Your task to perform on an android device: Open the calendar and show me this week's events? Image 0: 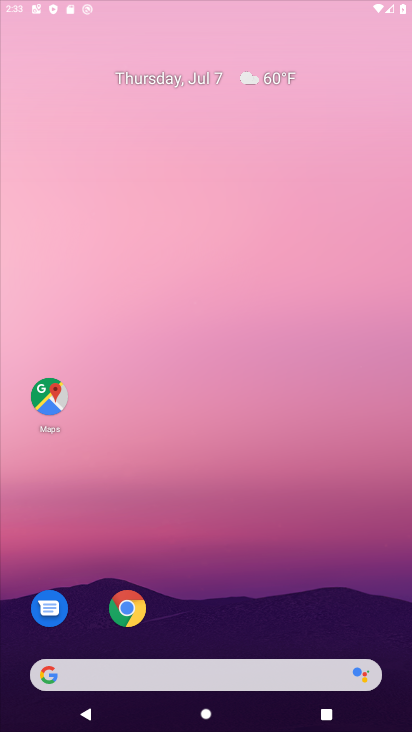
Step 0: drag from (240, 641) to (227, 83)
Your task to perform on an android device: Open the calendar and show me this week's events? Image 1: 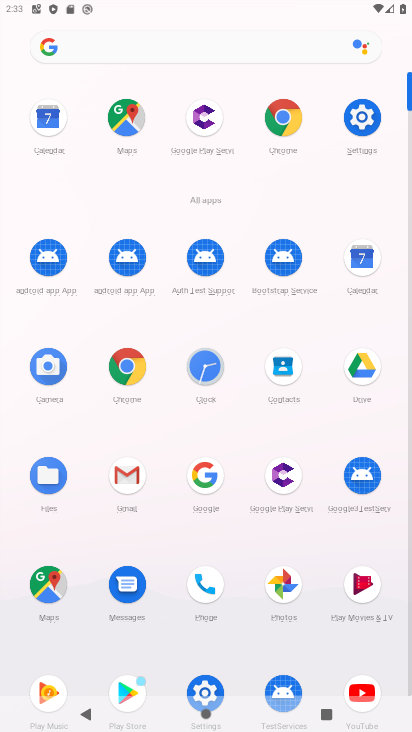
Step 1: click (364, 261)
Your task to perform on an android device: Open the calendar and show me this week's events? Image 2: 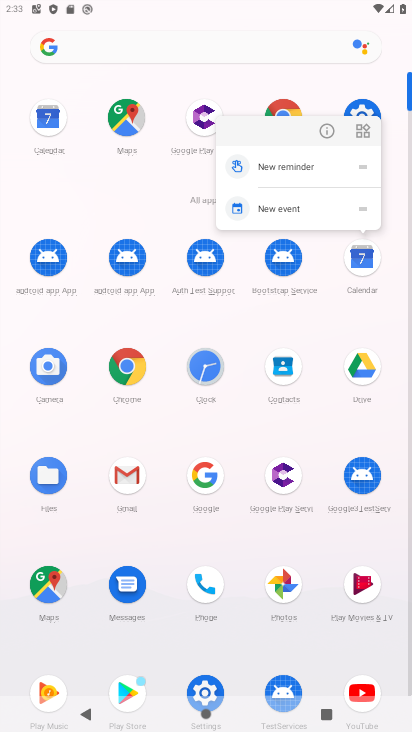
Step 2: click (359, 258)
Your task to perform on an android device: Open the calendar and show me this week's events? Image 3: 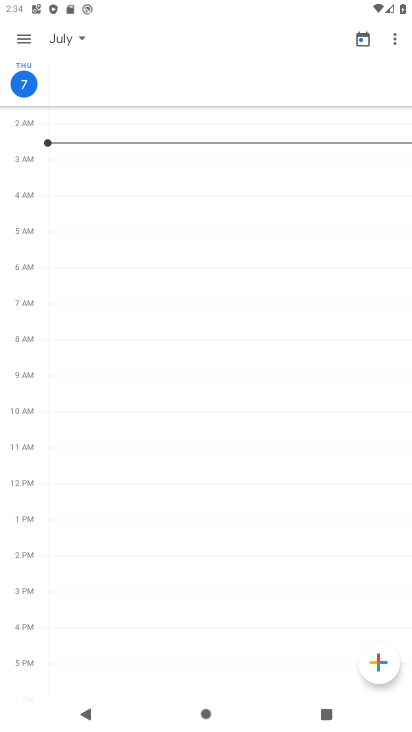
Step 3: click (16, 33)
Your task to perform on an android device: Open the calendar and show me this week's events? Image 4: 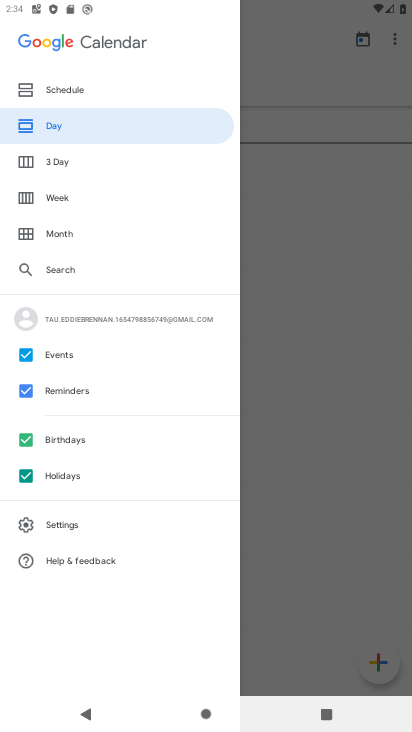
Step 4: click (26, 384)
Your task to perform on an android device: Open the calendar and show me this week's events? Image 5: 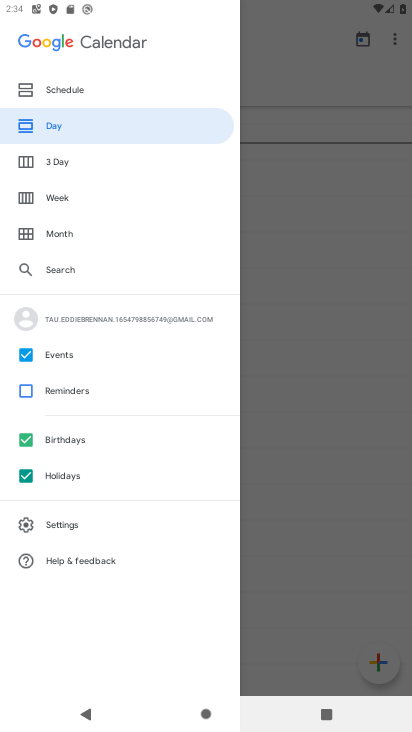
Step 5: click (24, 442)
Your task to perform on an android device: Open the calendar and show me this week's events? Image 6: 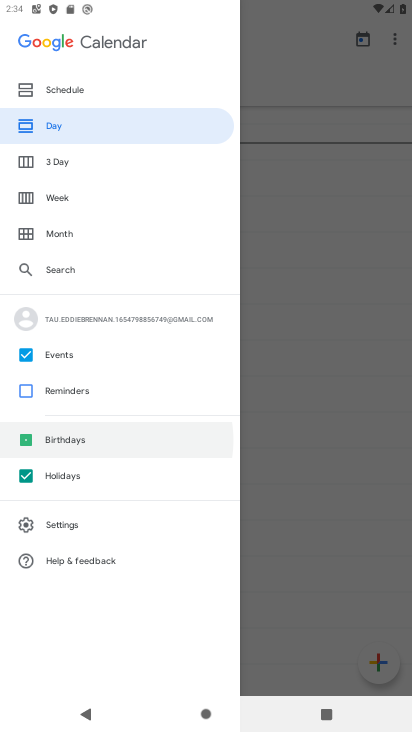
Step 6: click (27, 472)
Your task to perform on an android device: Open the calendar and show me this week's events? Image 7: 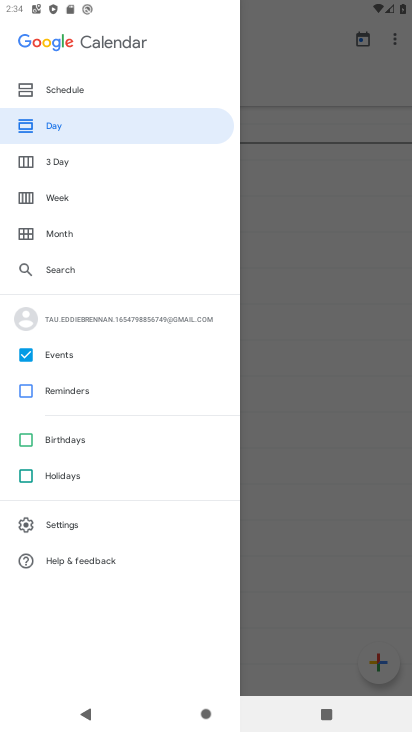
Step 7: click (31, 200)
Your task to perform on an android device: Open the calendar and show me this week's events? Image 8: 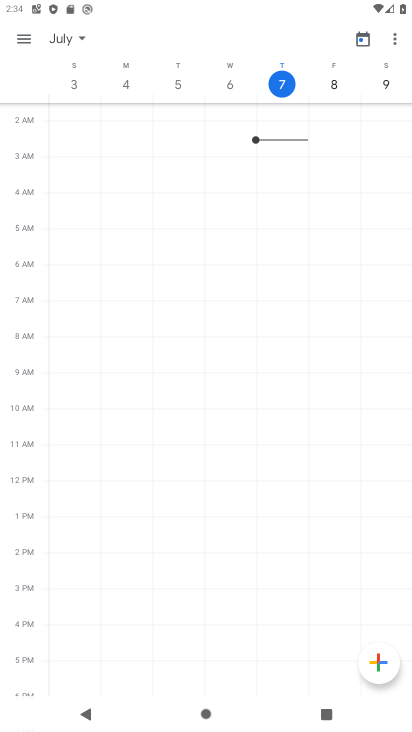
Step 8: click (281, 82)
Your task to perform on an android device: Open the calendar and show me this week's events? Image 9: 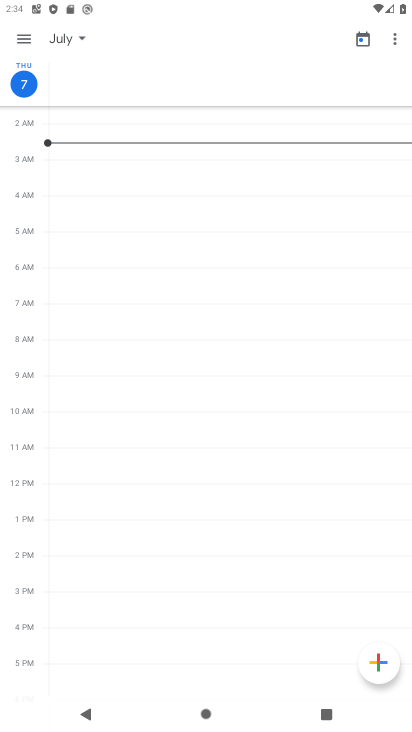
Step 9: click (26, 84)
Your task to perform on an android device: Open the calendar and show me this week's events? Image 10: 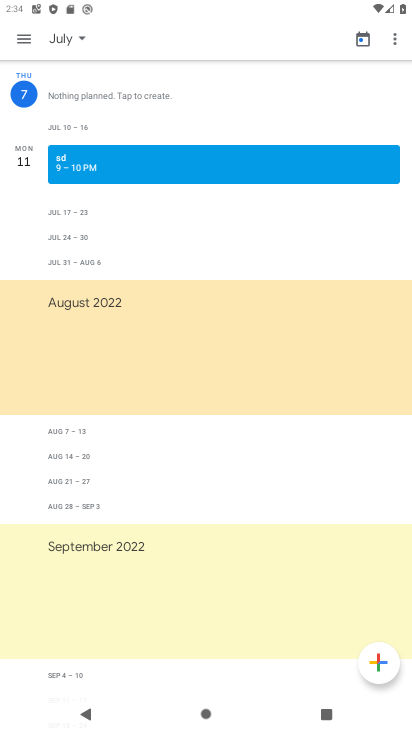
Step 10: task complete